Your task to perform on an android device: Open Google Chrome Image 0: 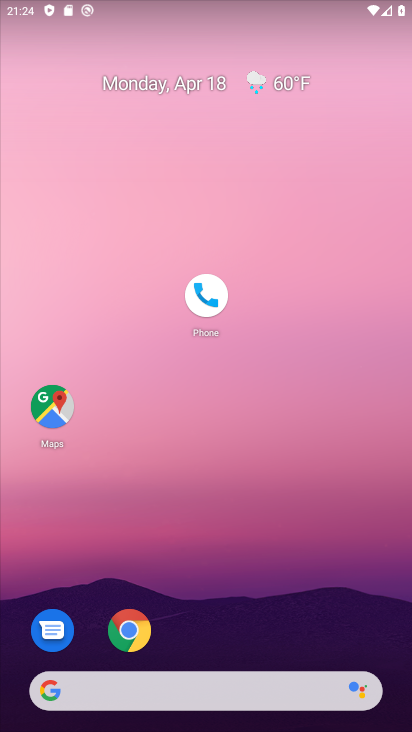
Step 0: drag from (323, 634) to (336, 74)
Your task to perform on an android device: Open Google Chrome Image 1: 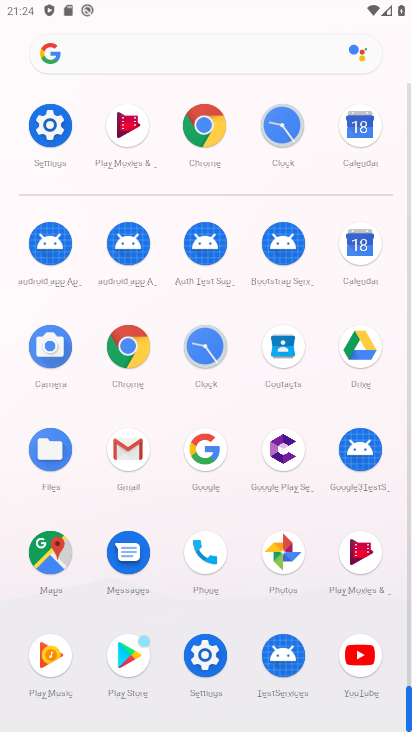
Step 1: click (198, 134)
Your task to perform on an android device: Open Google Chrome Image 2: 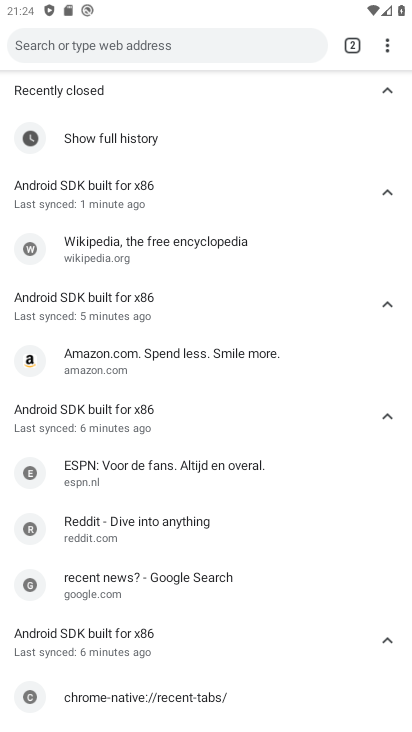
Step 2: task complete